Your task to perform on an android device: Open settings on Google Maps Image 0: 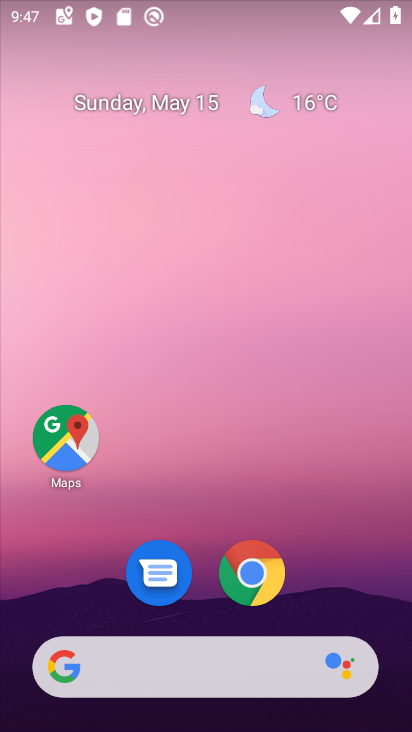
Step 0: press home button
Your task to perform on an android device: Open settings on Google Maps Image 1: 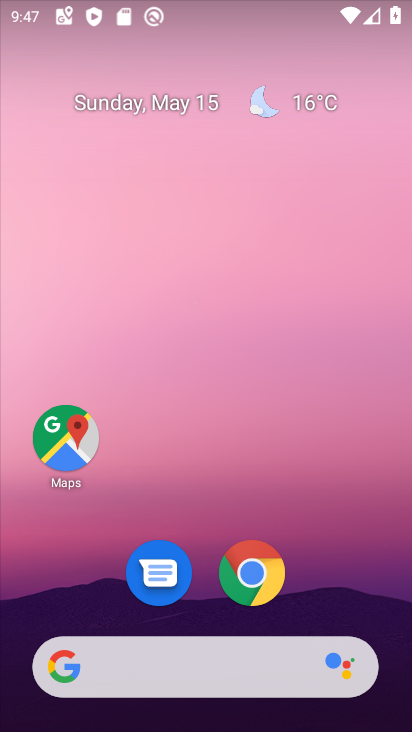
Step 1: drag from (353, 555) to (412, 659)
Your task to perform on an android device: Open settings on Google Maps Image 2: 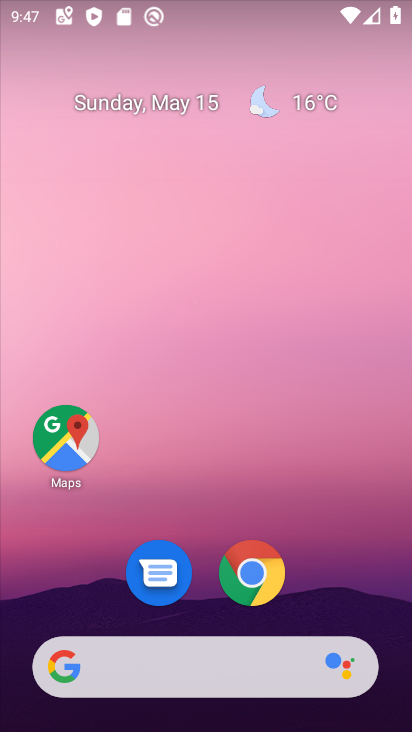
Step 2: click (44, 433)
Your task to perform on an android device: Open settings on Google Maps Image 3: 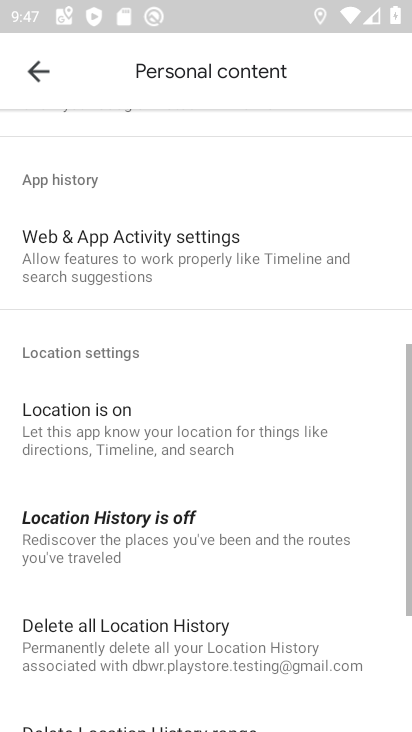
Step 3: click (35, 91)
Your task to perform on an android device: Open settings on Google Maps Image 4: 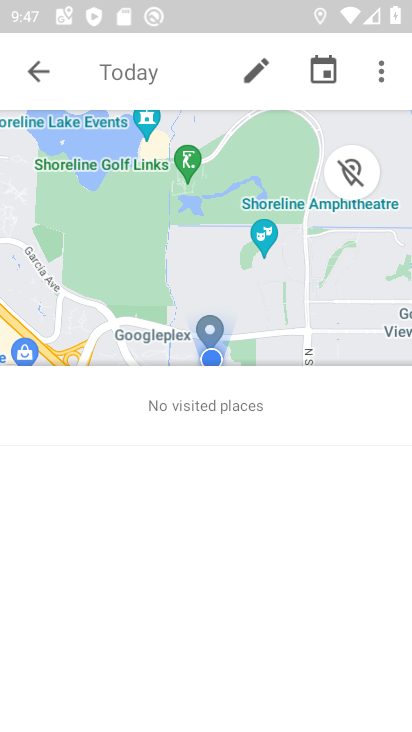
Step 4: click (32, 89)
Your task to perform on an android device: Open settings on Google Maps Image 5: 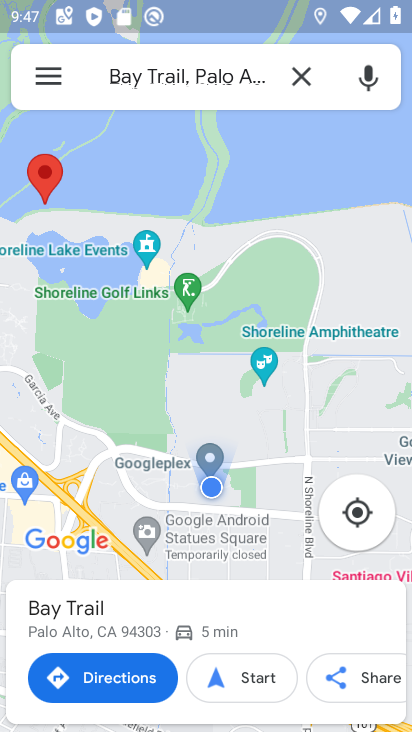
Step 5: click (44, 70)
Your task to perform on an android device: Open settings on Google Maps Image 6: 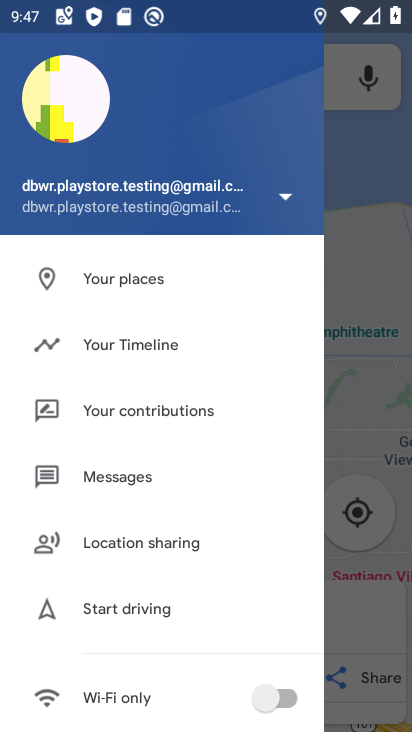
Step 6: click (84, 342)
Your task to perform on an android device: Open settings on Google Maps Image 7: 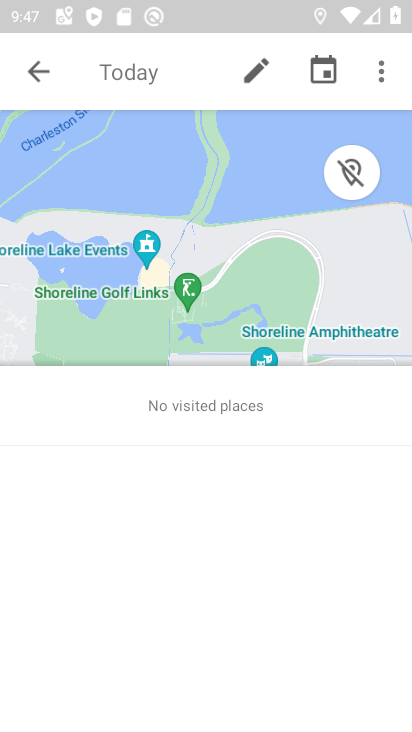
Step 7: click (379, 69)
Your task to perform on an android device: Open settings on Google Maps Image 8: 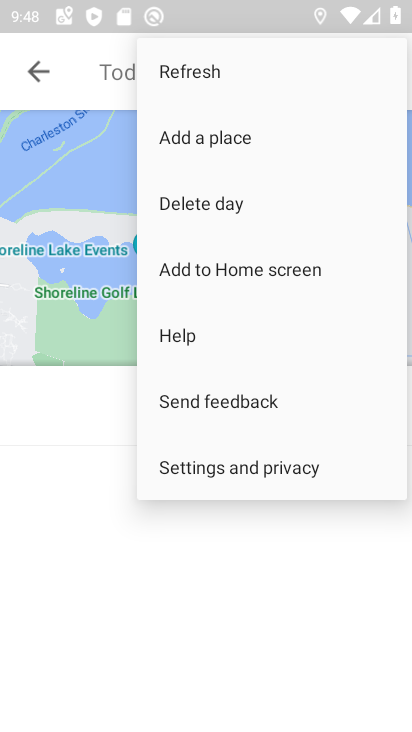
Step 8: click (246, 463)
Your task to perform on an android device: Open settings on Google Maps Image 9: 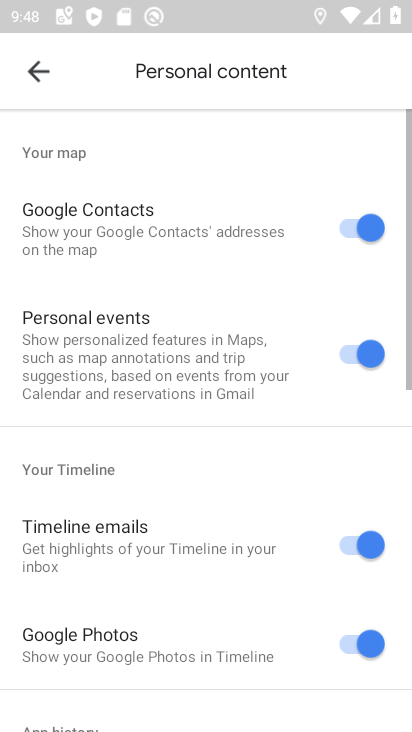
Step 9: task complete